Your task to perform on an android device: empty trash in google photos Image 0: 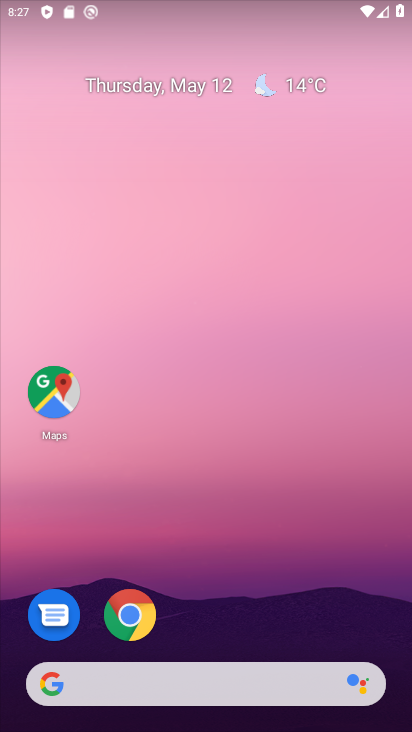
Step 0: drag from (214, 683) to (163, 80)
Your task to perform on an android device: empty trash in google photos Image 1: 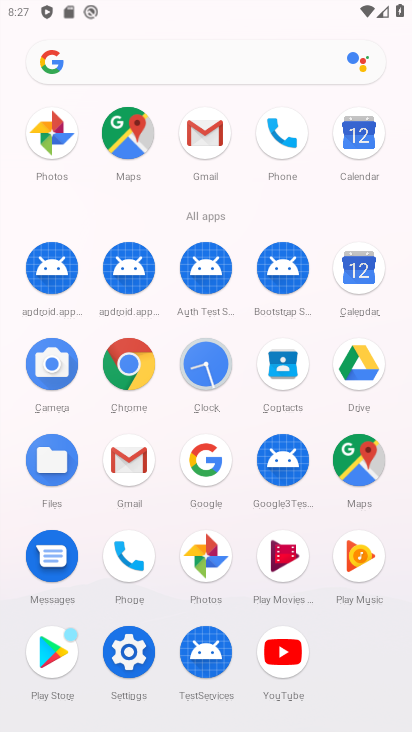
Step 1: click (217, 567)
Your task to perform on an android device: empty trash in google photos Image 2: 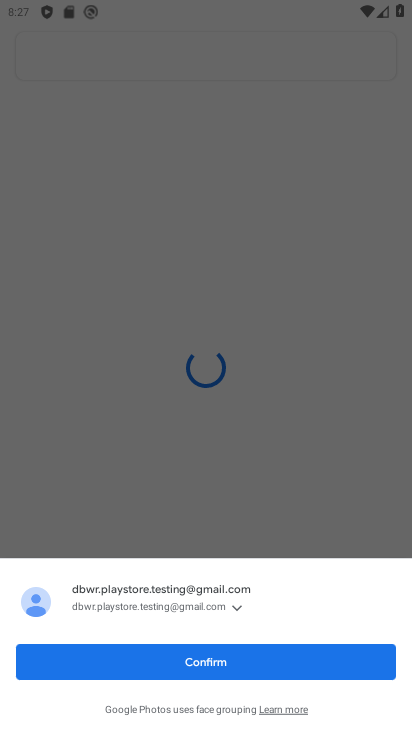
Step 2: click (192, 657)
Your task to perform on an android device: empty trash in google photos Image 3: 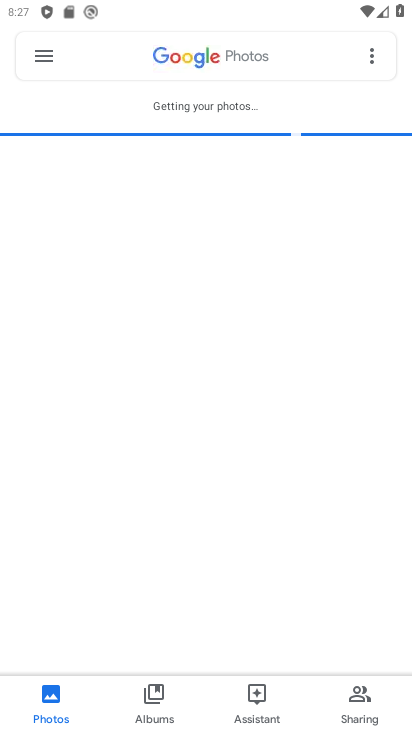
Step 3: click (44, 61)
Your task to perform on an android device: empty trash in google photos Image 4: 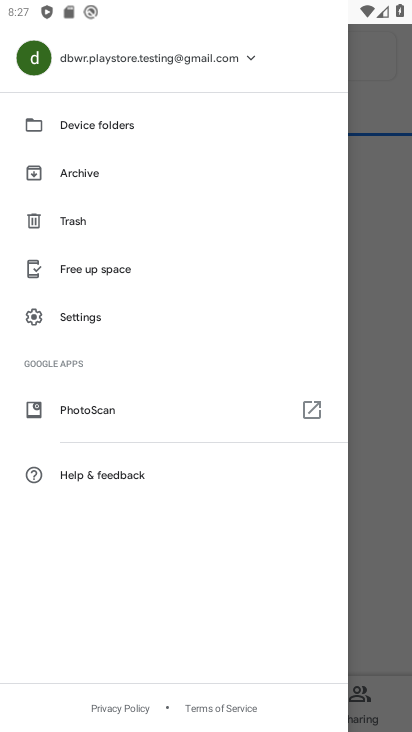
Step 4: click (76, 227)
Your task to perform on an android device: empty trash in google photos Image 5: 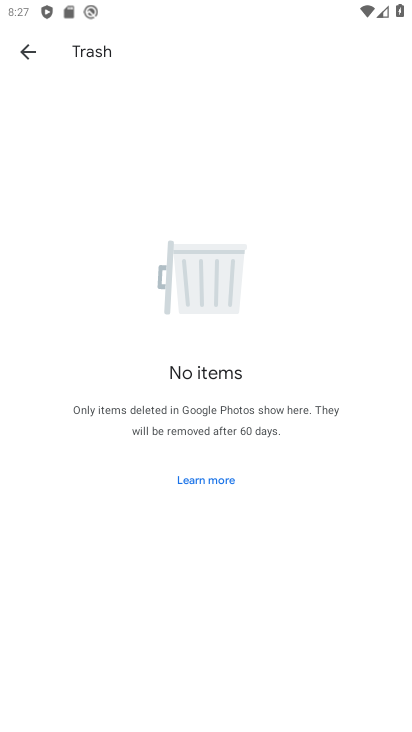
Step 5: task complete